Your task to perform on an android device: turn on wifi Image 0: 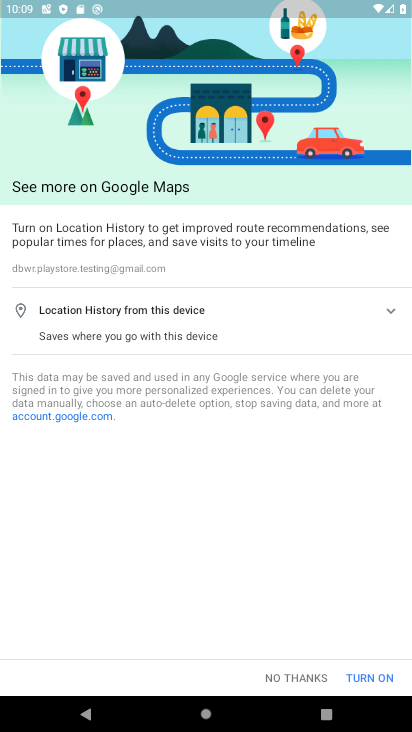
Step 0: press home button
Your task to perform on an android device: turn on wifi Image 1: 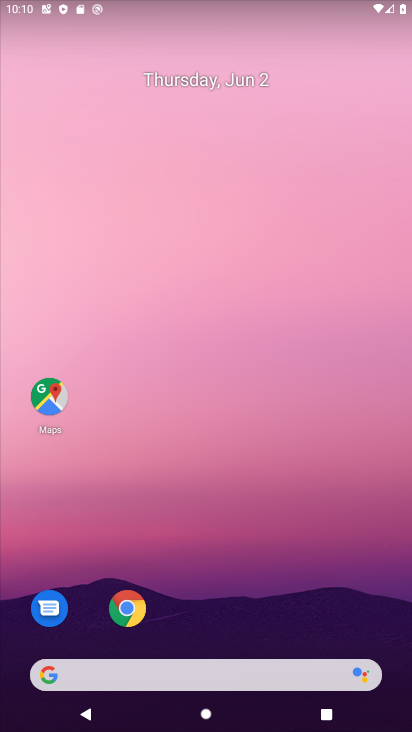
Step 1: drag from (190, 618) to (294, 102)
Your task to perform on an android device: turn on wifi Image 2: 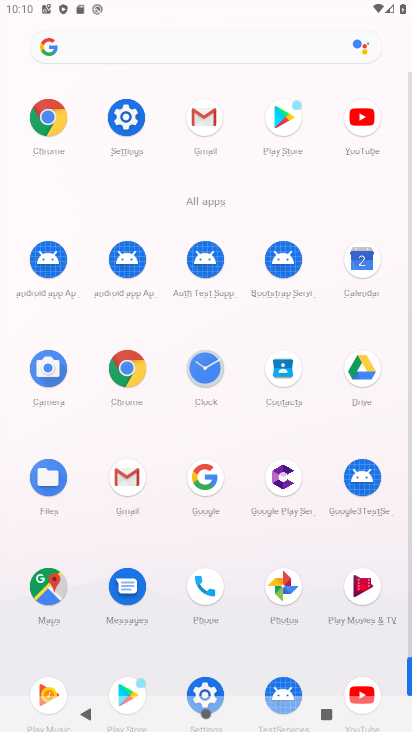
Step 2: click (198, 688)
Your task to perform on an android device: turn on wifi Image 3: 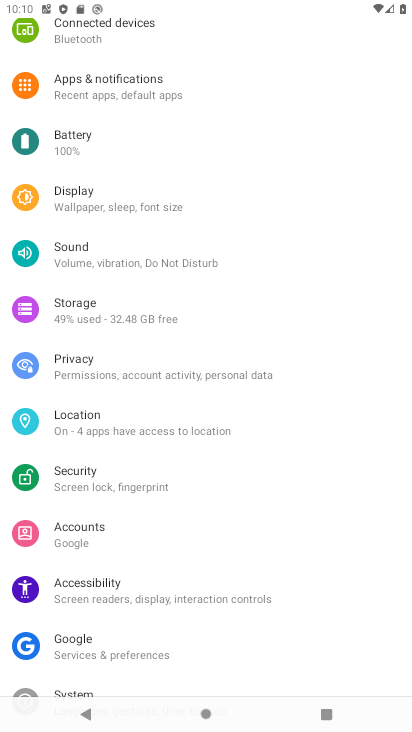
Step 3: drag from (160, 62) to (62, 470)
Your task to perform on an android device: turn on wifi Image 4: 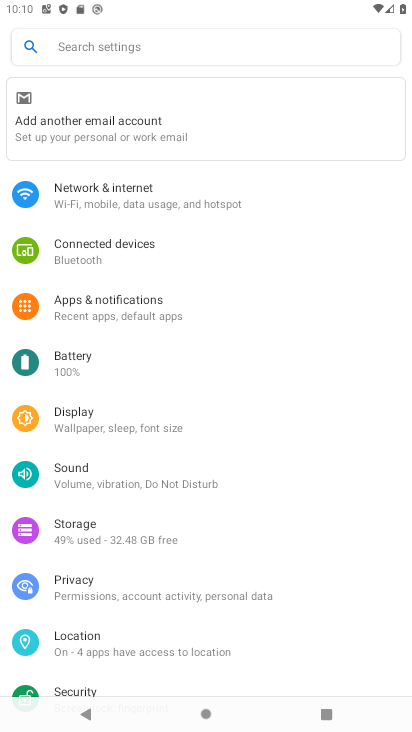
Step 4: click (186, 186)
Your task to perform on an android device: turn on wifi Image 5: 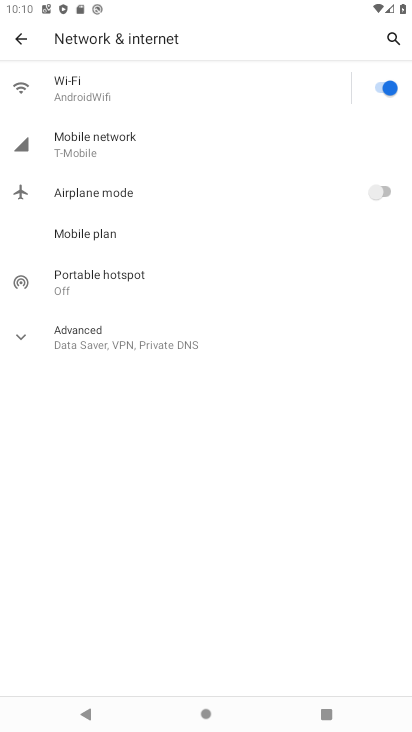
Step 5: task complete